Your task to perform on an android device: change the upload size in google photos Image 0: 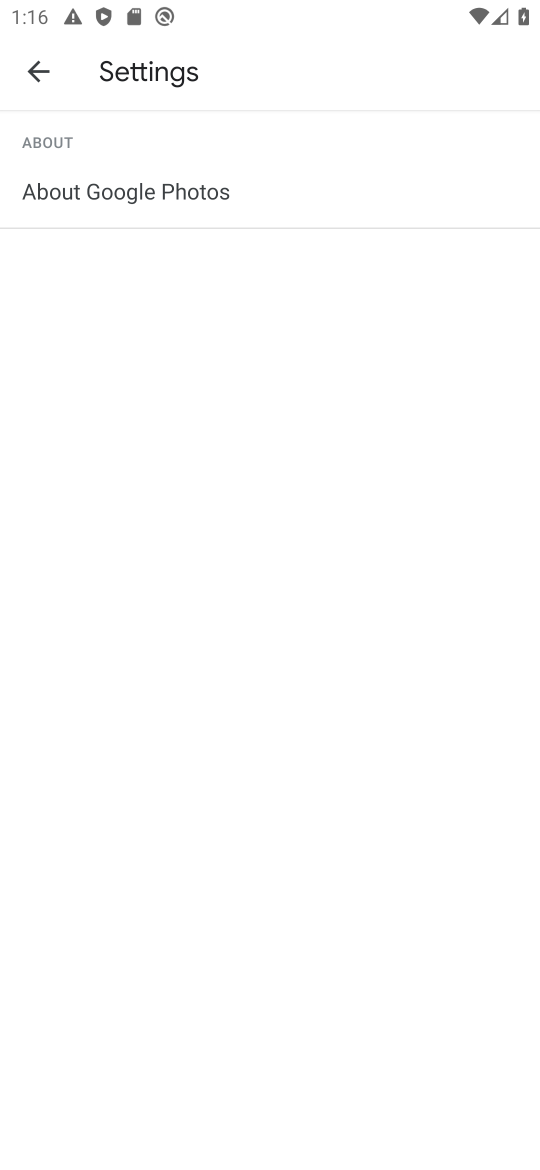
Step 0: press home button
Your task to perform on an android device: change the upload size in google photos Image 1: 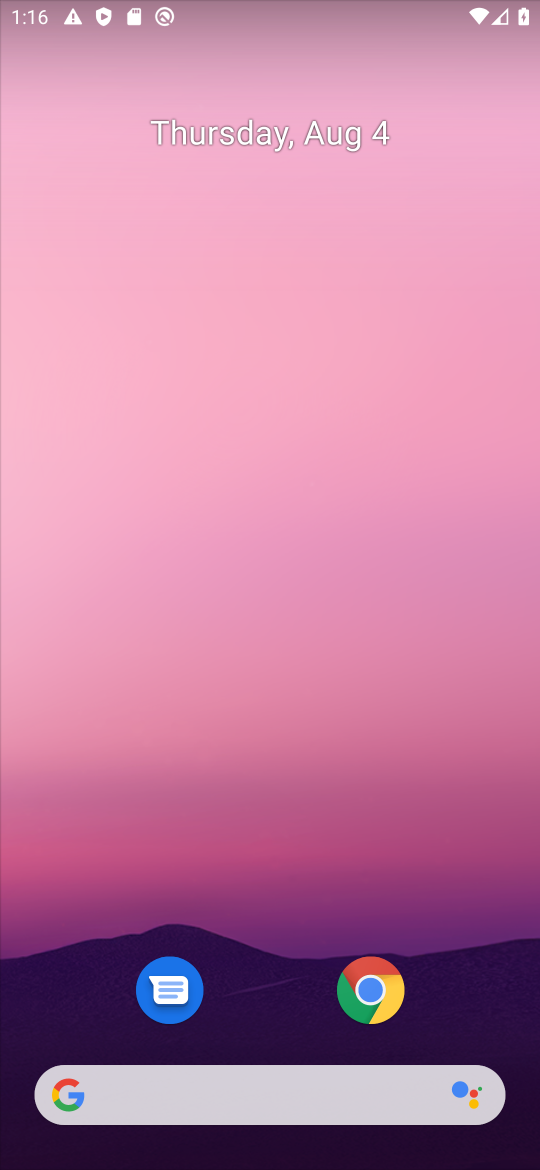
Step 1: drag from (295, 1034) to (422, 202)
Your task to perform on an android device: change the upload size in google photos Image 2: 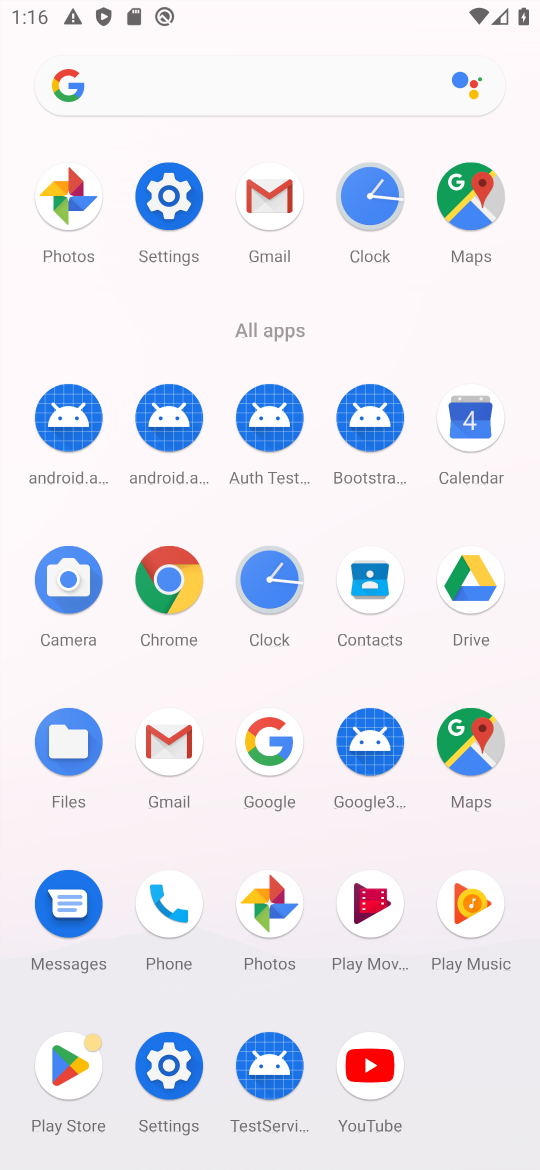
Step 2: click (271, 909)
Your task to perform on an android device: change the upload size in google photos Image 3: 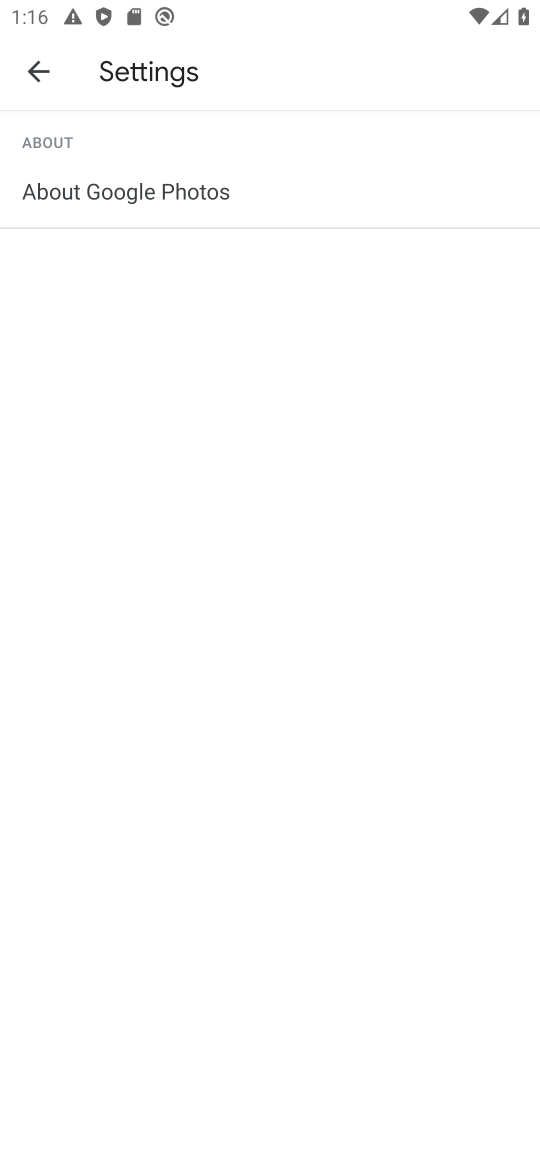
Step 3: task complete